Your task to perform on an android device: Open privacy settings Image 0: 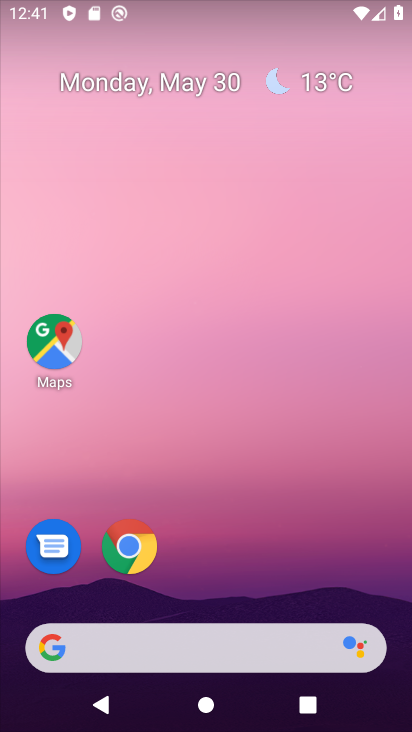
Step 0: press home button
Your task to perform on an android device: Open privacy settings Image 1: 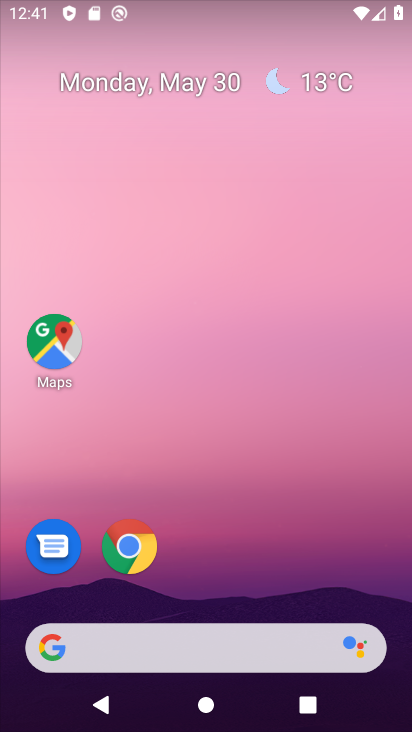
Step 1: drag from (245, 595) to (291, 238)
Your task to perform on an android device: Open privacy settings Image 2: 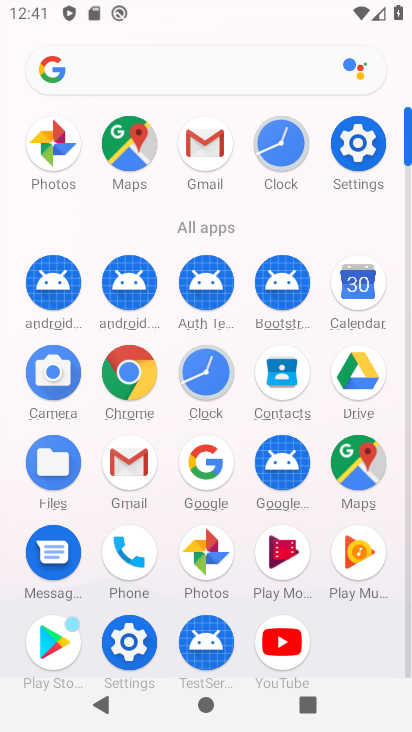
Step 2: click (357, 156)
Your task to perform on an android device: Open privacy settings Image 3: 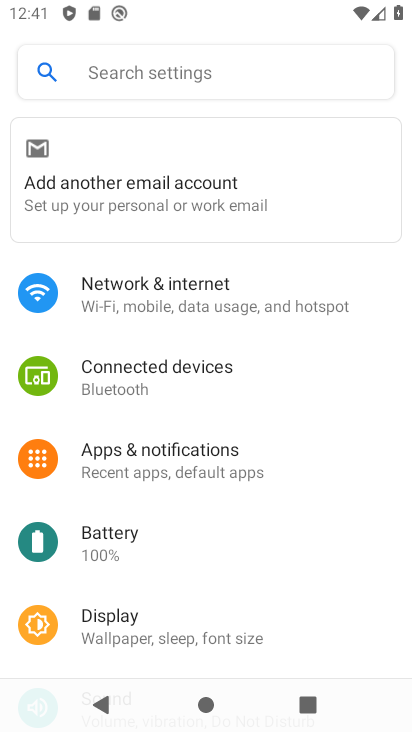
Step 3: drag from (332, 507) to (339, 258)
Your task to perform on an android device: Open privacy settings Image 4: 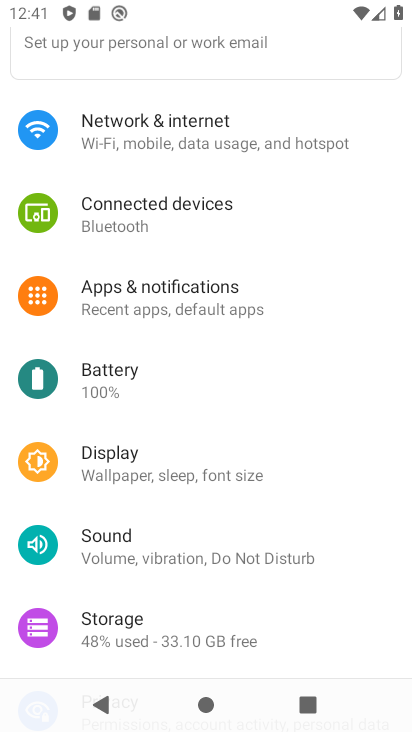
Step 4: drag from (275, 431) to (295, 140)
Your task to perform on an android device: Open privacy settings Image 5: 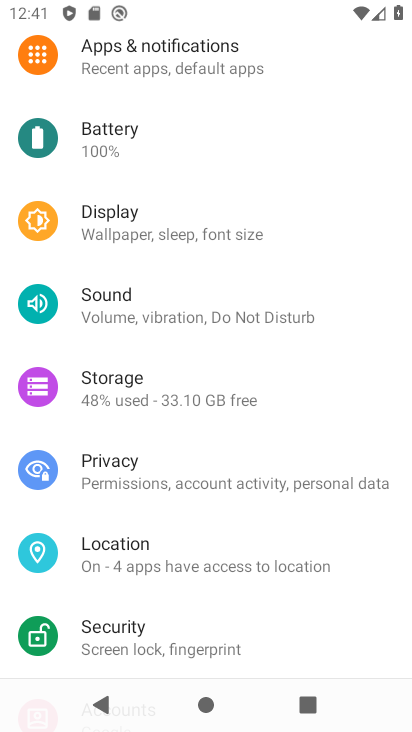
Step 5: click (102, 474)
Your task to perform on an android device: Open privacy settings Image 6: 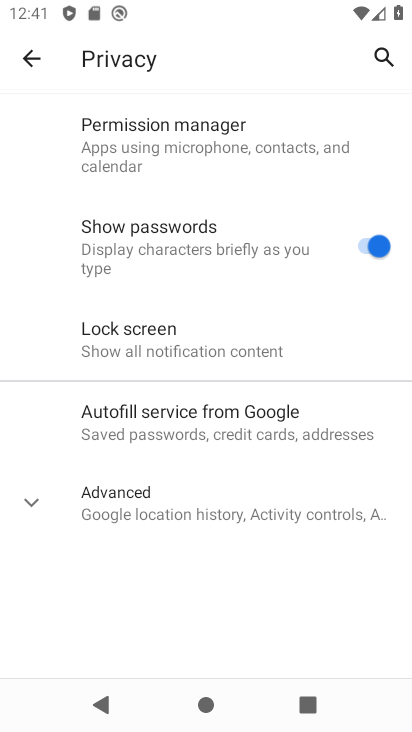
Step 6: task complete